Your task to perform on an android device: turn smart compose on in the gmail app Image 0: 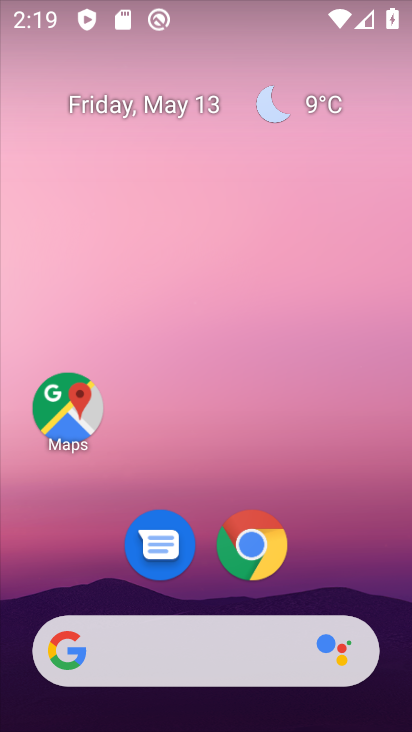
Step 0: press home button
Your task to perform on an android device: turn smart compose on in the gmail app Image 1: 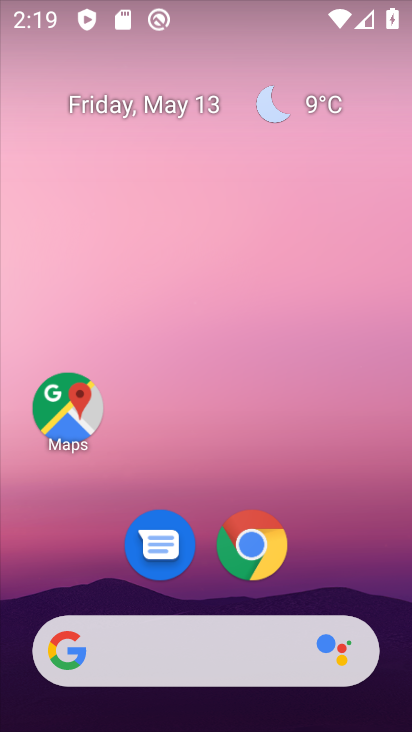
Step 1: drag from (360, 564) to (361, 182)
Your task to perform on an android device: turn smart compose on in the gmail app Image 2: 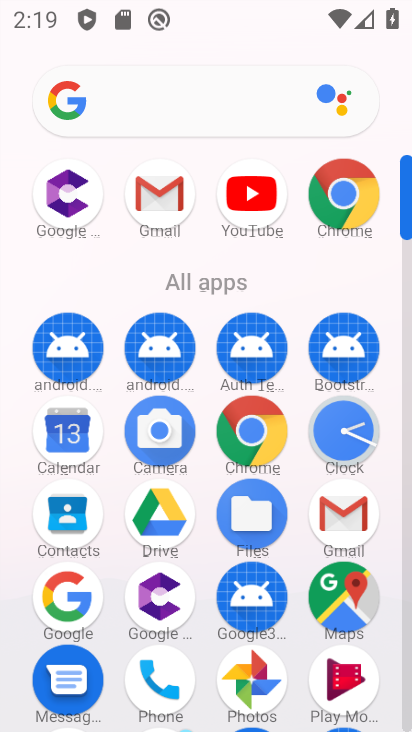
Step 2: click (156, 196)
Your task to perform on an android device: turn smart compose on in the gmail app Image 3: 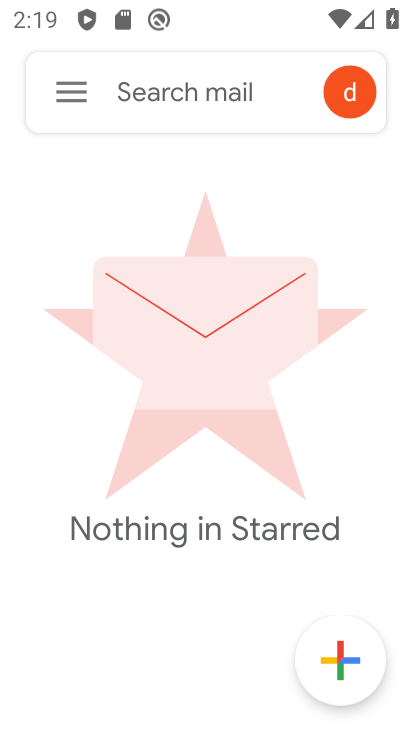
Step 3: click (58, 93)
Your task to perform on an android device: turn smart compose on in the gmail app Image 4: 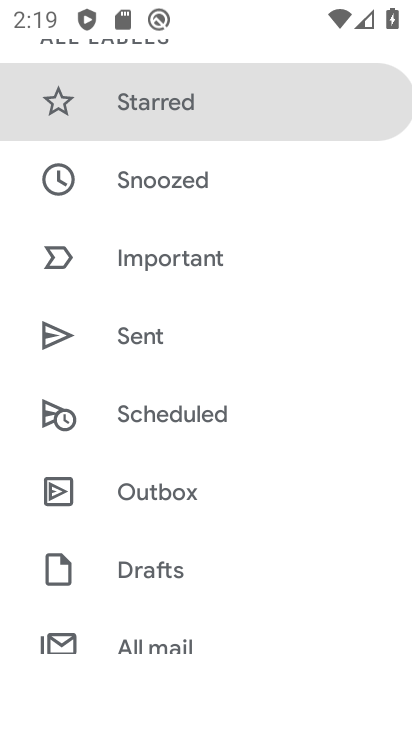
Step 4: drag from (229, 578) to (267, 181)
Your task to perform on an android device: turn smart compose on in the gmail app Image 5: 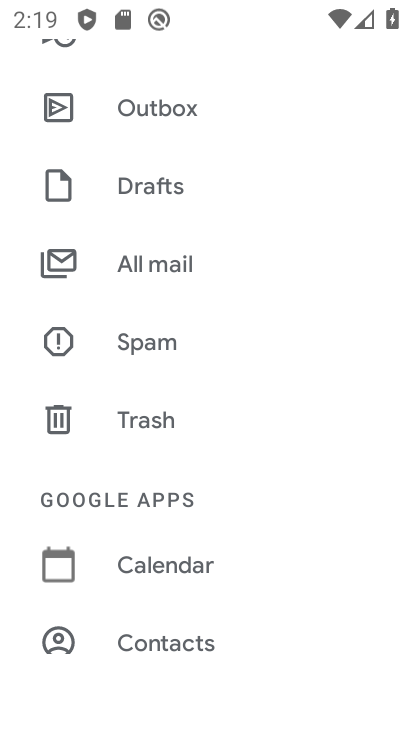
Step 5: drag from (252, 623) to (243, 213)
Your task to perform on an android device: turn smart compose on in the gmail app Image 6: 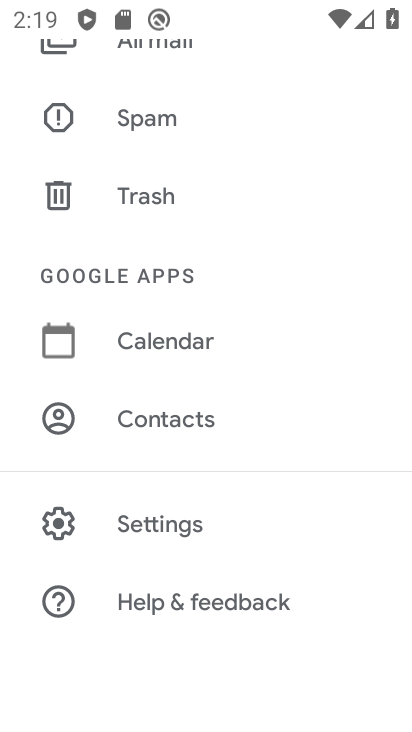
Step 6: click (143, 518)
Your task to perform on an android device: turn smart compose on in the gmail app Image 7: 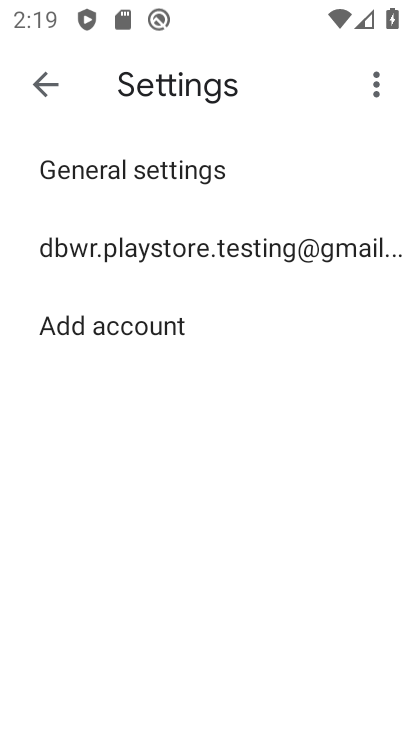
Step 7: click (258, 247)
Your task to perform on an android device: turn smart compose on in the gmail app Image 8: 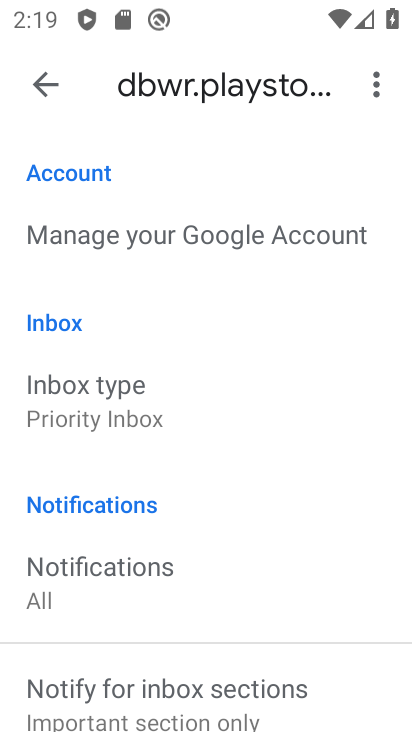
Step 8: task complete